Your task to perform on an android device: Go to Maps Image 0: 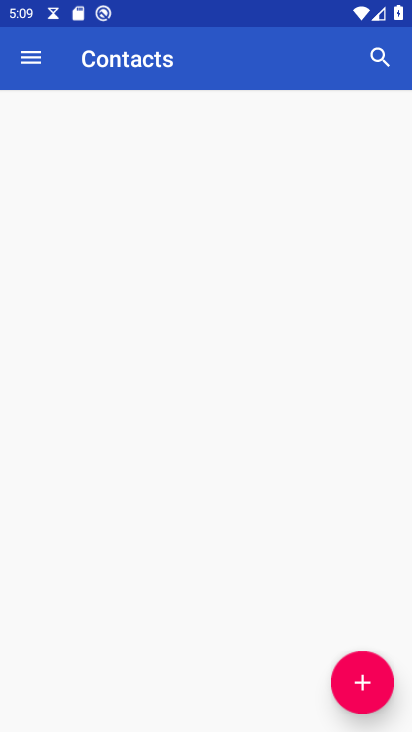
Step 0: click (314, 645)
Your task to perform on an android device: Go to Maps Image 1: 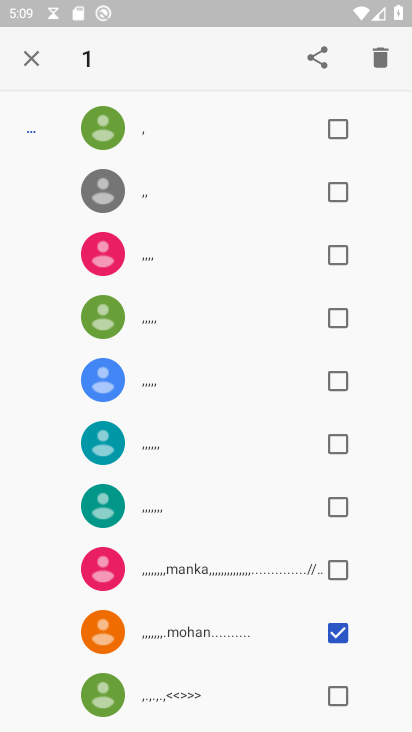
Step 1: press home button
Your task to perform on an android device: Go to Maps Image 2: 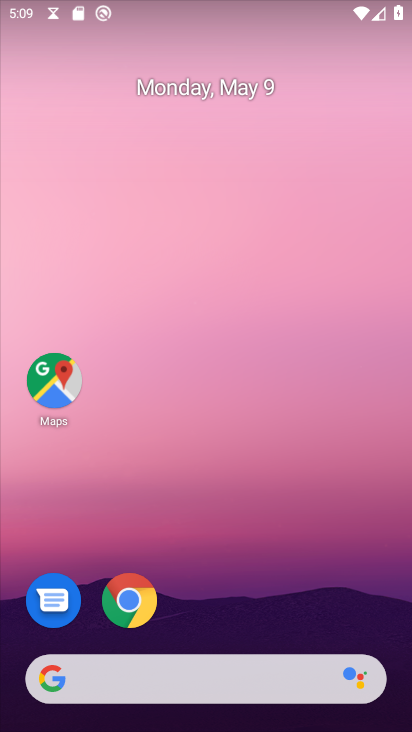
Step 2: drag from (253, 668) to (254, 110)
Your task to perform on an android device: Go to Maps Image 3: 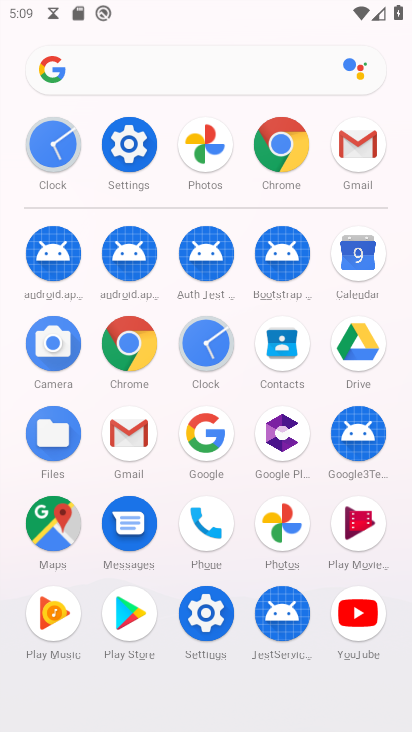
Step 3: click (53, 532)
Your task to perform on an android device: Go to Maps Image 4: 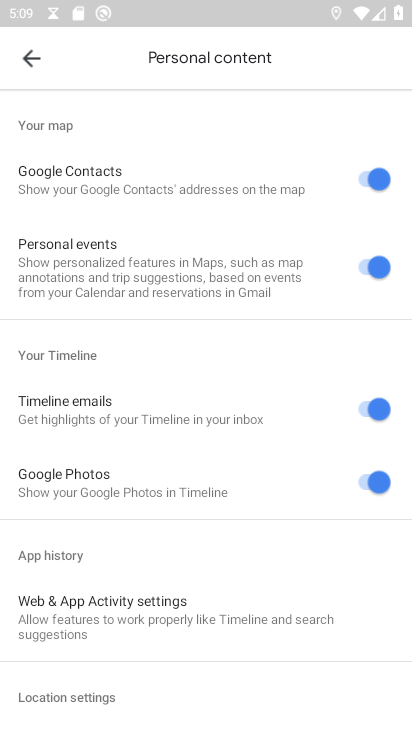
Step 4: task complete